Your task to perform on an android device: Open a new window in Chrome Image 0: 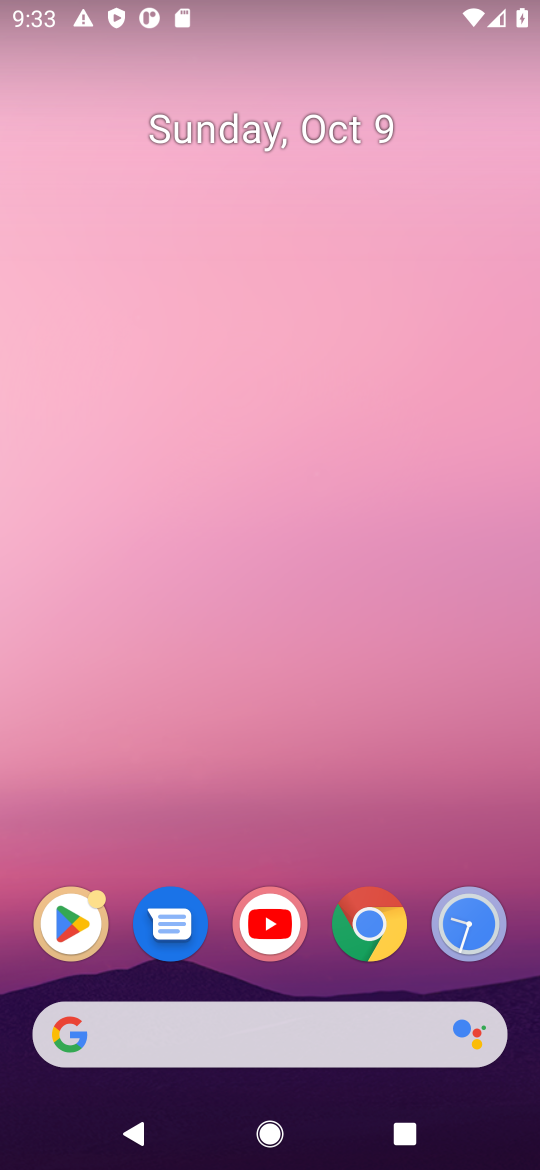
Step 0: click (377, 945)
Your task to perform on an android device: Open a new window in Chrome Image 1: 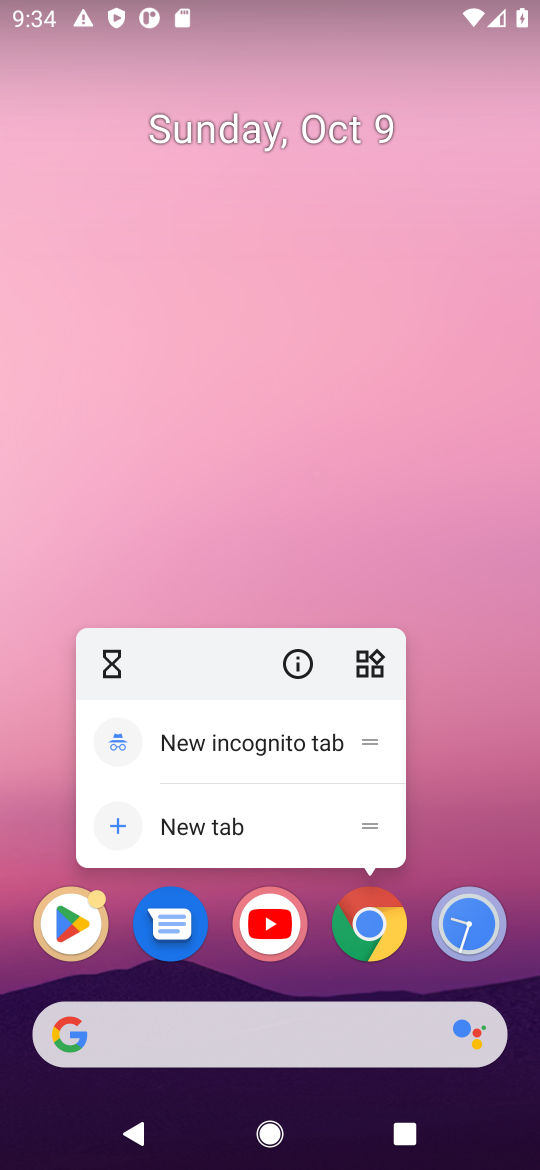
Step 1: click (377, 945)
Your task to perform on an android device: Open a new window in Chrome Image 2: 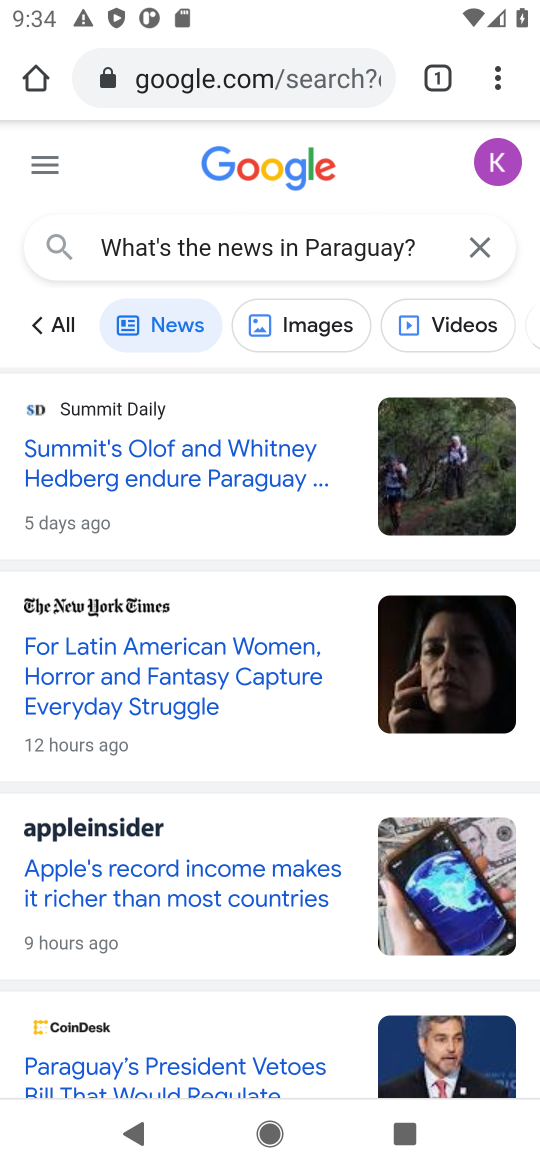
Step 2: click (435, 75)
Your task to perform on an android device: Open a new window in Chrome Image 3: 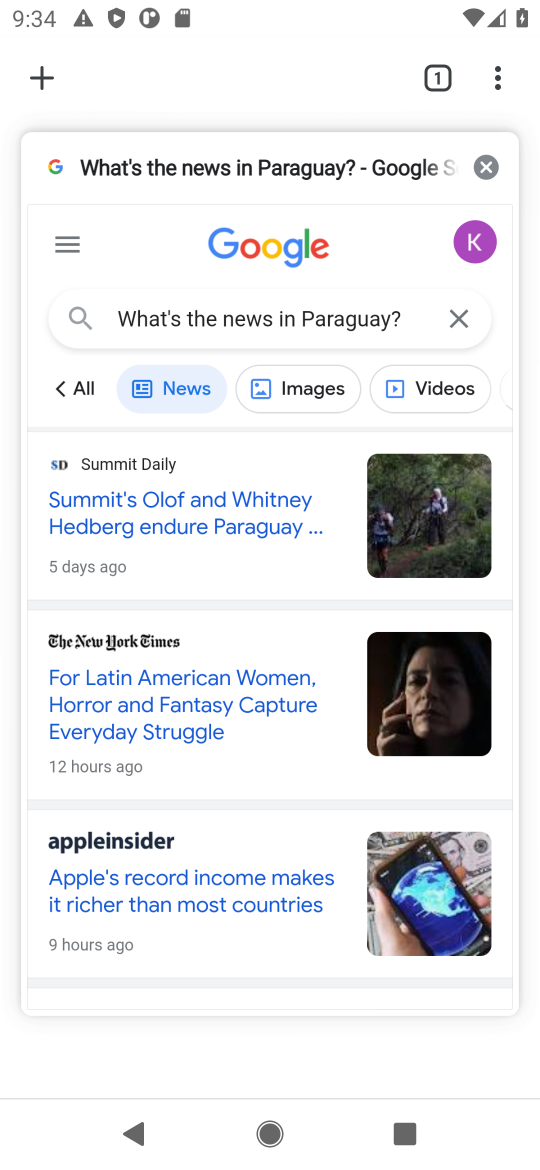
Step 3: click (50, 75)
Your task to perform on an android device: Open a new window in Chrome Image 4: 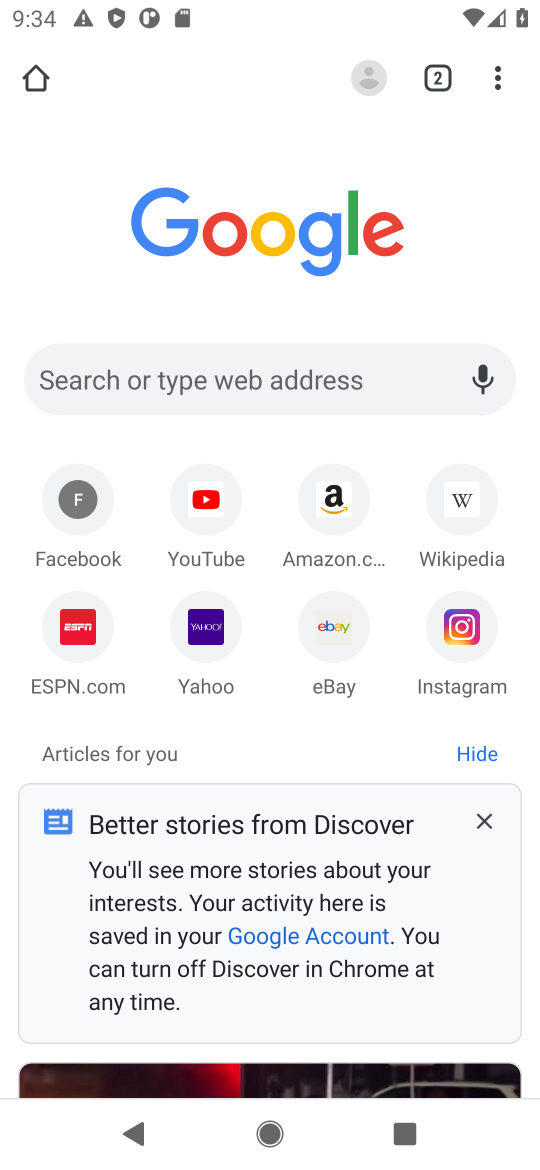
Step 4: task complete